Your task to perform on an android device: Search for sushi restaurants on Maps Image 0: 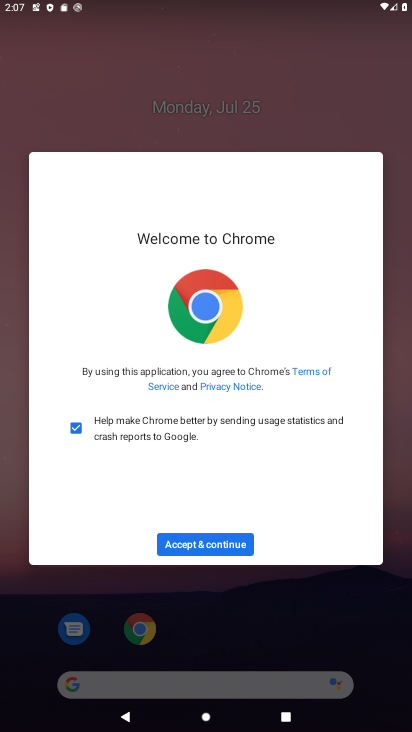
Step 0: press home button
Your task to perform on an android device: Search for sushi restaurants on Maps Image 1: 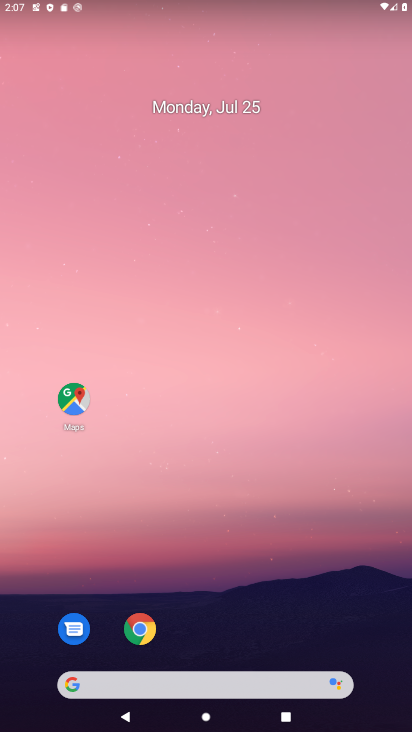
Step 1: click (76, 392)
Your task to perform on an android device: Search for sushi restaurants on Maps Image 2: 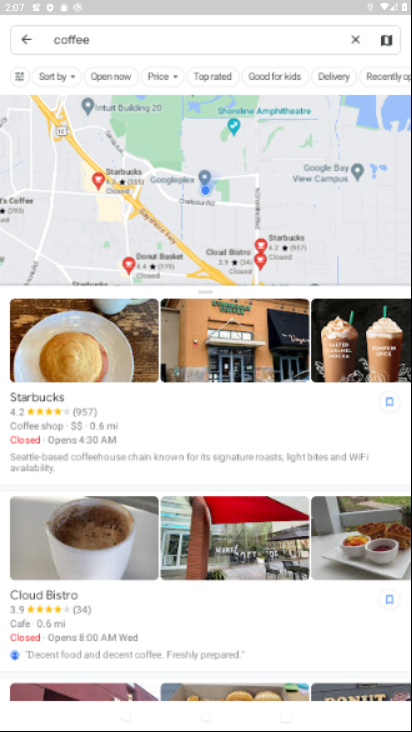
Step 2: click (31, 35)
Your task to perform on an android device: Search for sushi restaurants on Maps Image 3: 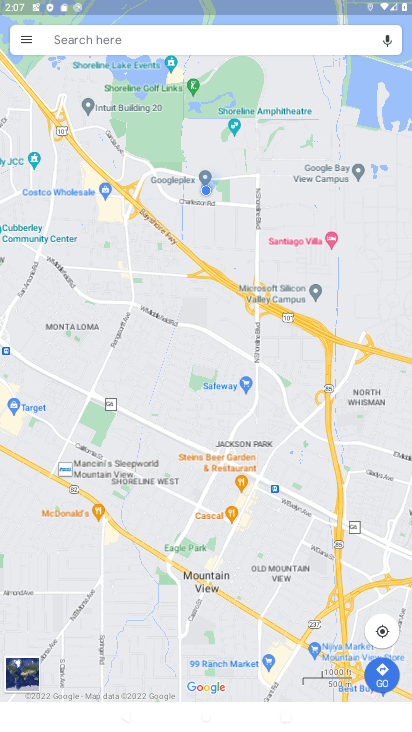
Step 3: click (73, 29)
Your task to perform on an android device: Search for sushi restaurants on Maps Image 4: 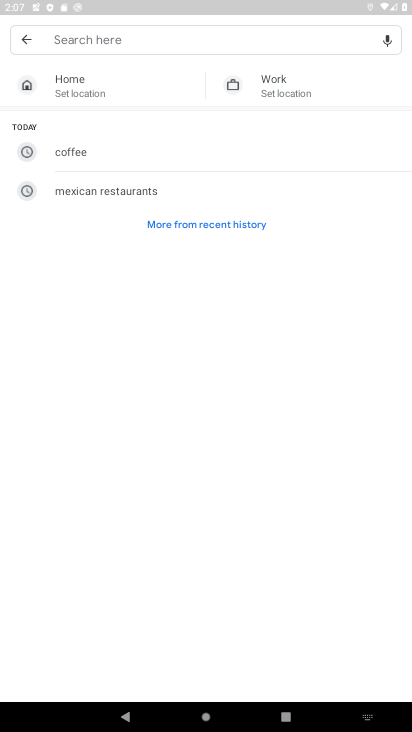
Step 4: type "sushi restaurants"
Your task to perform on an android device: Search for sushi restaurants on Maps Image 5: 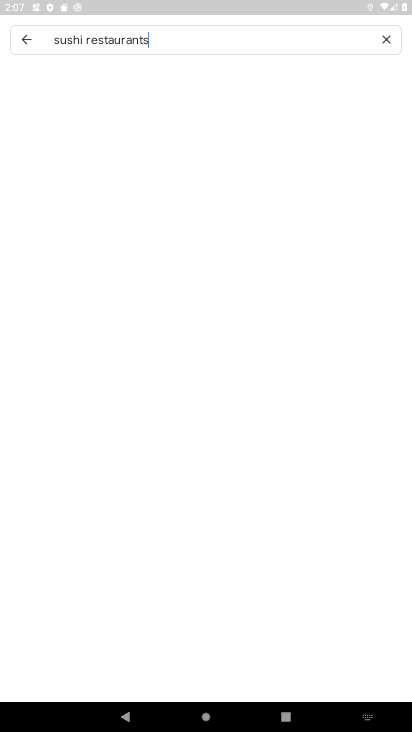
Step 5: type ""
Your task to perform on an android device: Search for sushi restaurants on Maps Image 6: 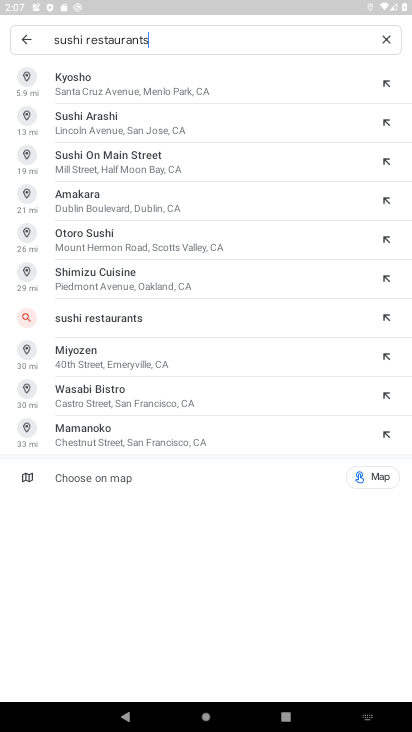
Step 6: type ""
Your task to perform on an android device: Search for sushi restaurants on Maps Image 7: 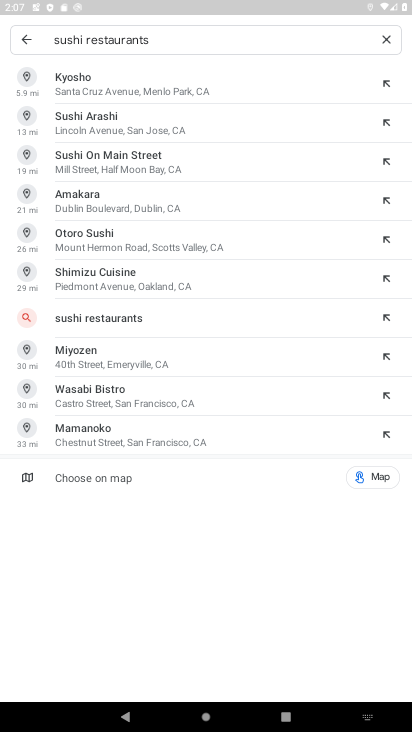
Step 7: type ""
Your task to perform on an android device: Search for sushi restaurants on Maps Image 8: 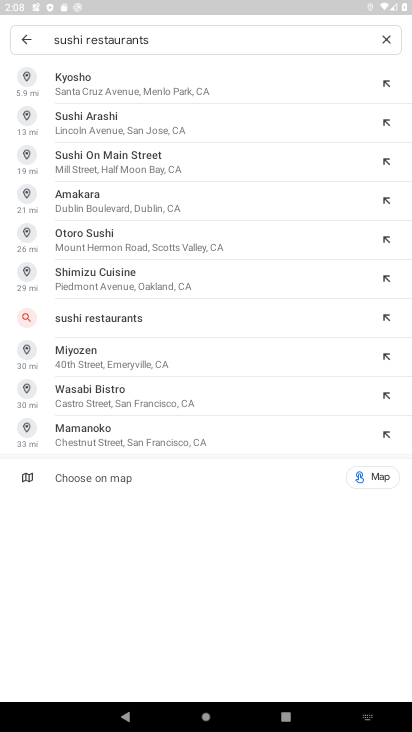
Step 8: task complete